Your task to perform on an android device: allow cookies in the chrome app Image 0: 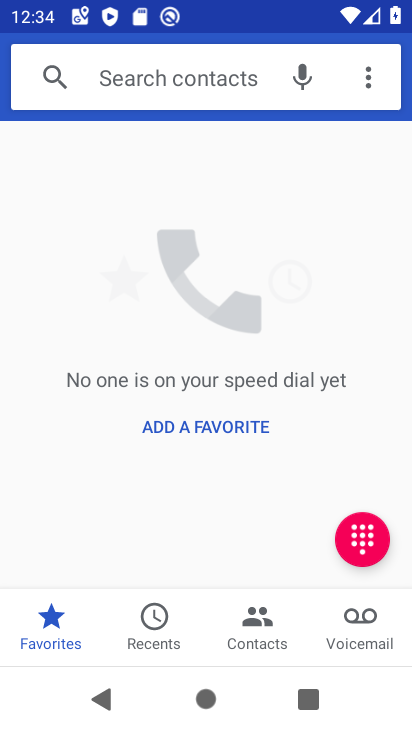
Step 0: press home button
Your task to perform on an android device: allow cookies in the chrome app Image 1: 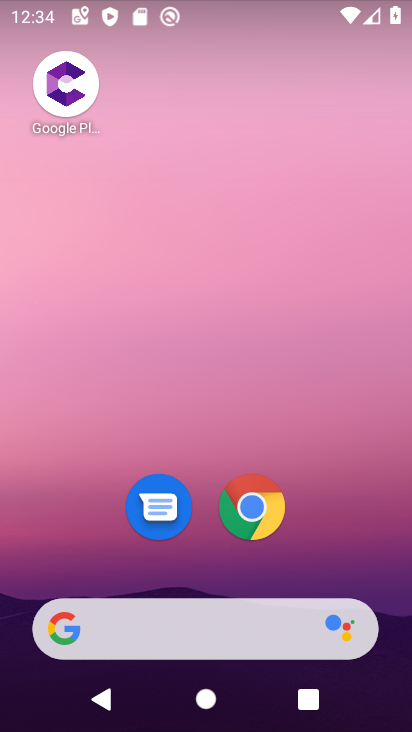
Step 1: click (252, 503)
Your task to perform on an android device: allow cookies in the chrome app Image 2: 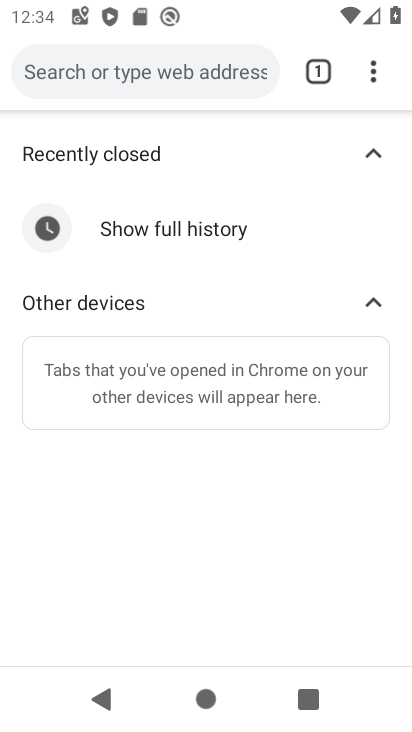
Step 2: click (373, 74)
Your task to perform on an android device: allow cookies in the chrome app Image 3: 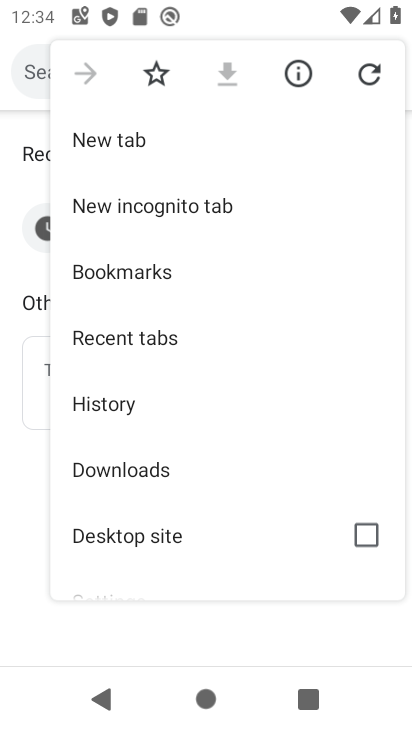
Step 3: drag from (245, 511) to (228, 146)
Your task to perform on an android device: allow cookies in the chrome app Image 4: 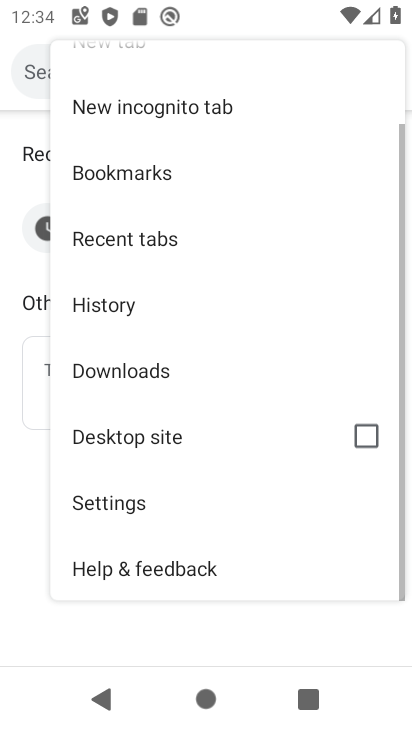
Step 4: click (185, 487)
Your task to perform on an android device: allow cookies in the chrome app Image 5: 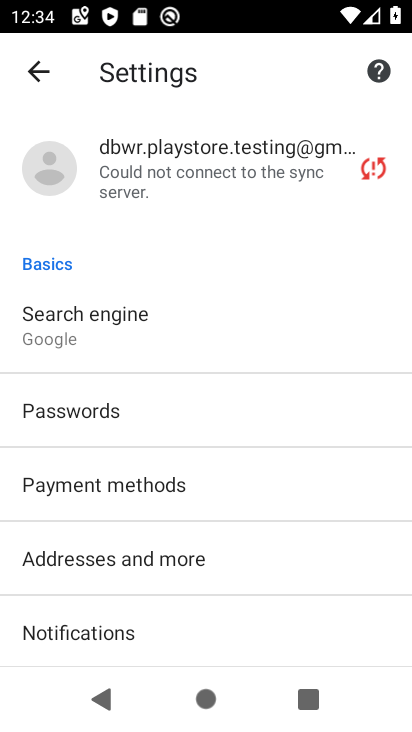
Step 5: drag from (210, 602) to (217, 202)
Your task to perform on an android device: allow cookies in the chrome app Image 6: 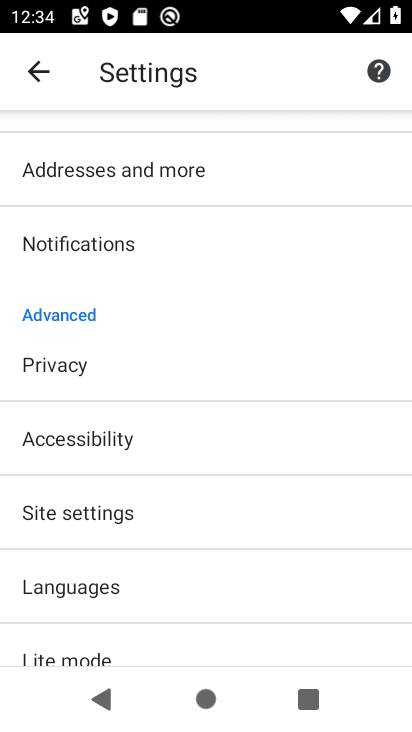
Step 6: click (141, 504)
Your task to perform on an android device: allow cookies in the chrome app Image 7: 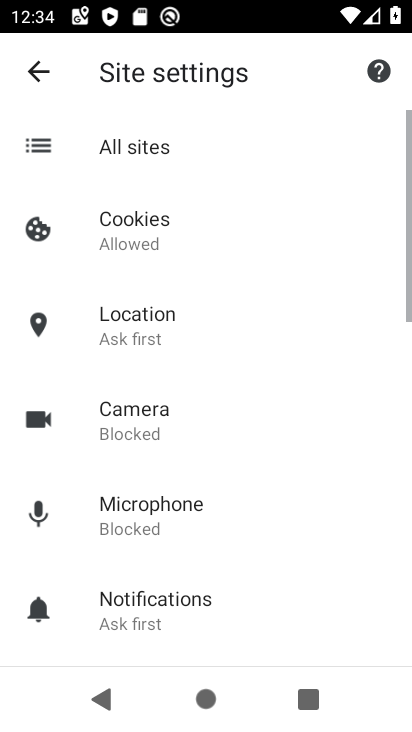
Step 7: click (160, 224)
Your task to perform on an android device: allow cookies in the chrome app Image 8: 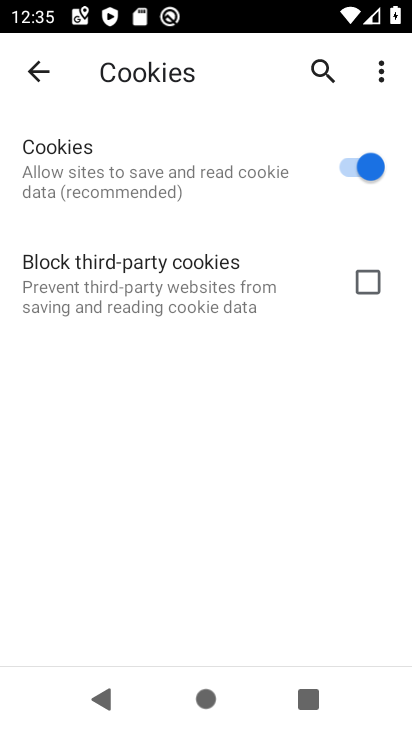
Step 8: task complete